Your task to perform on an android device: Open calendar and show me the fourth week of next month Image 0: 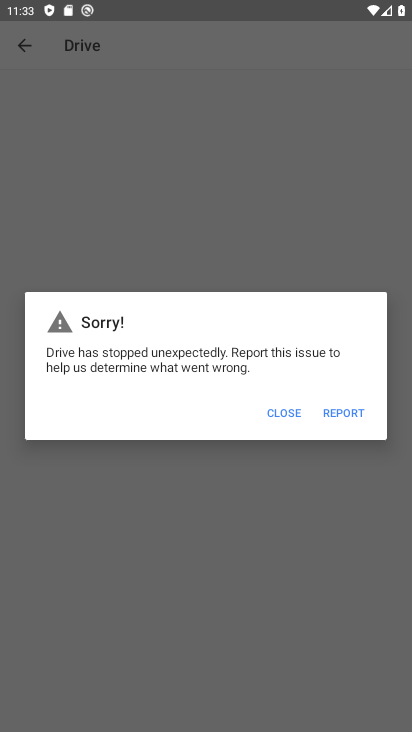
Step 0: press home button
Your task to perform on an android device: Open calendar and show me the fourth week of next month Image 1: 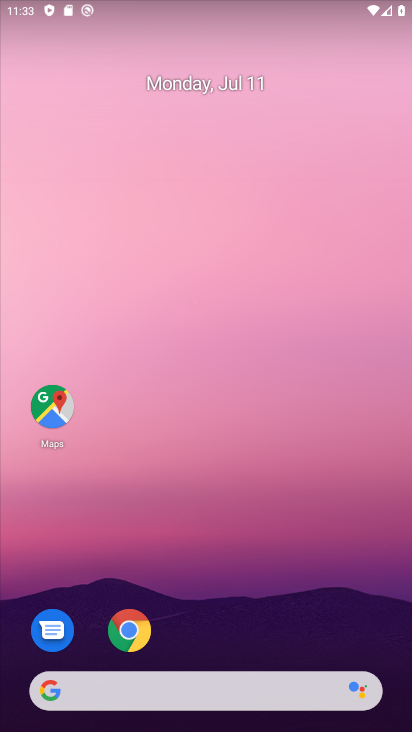
Step 1: drag from (192, 696) to (228, 77)
Your task to perform on an android device: Open calendar and show me the fourth week of next month Image 2: 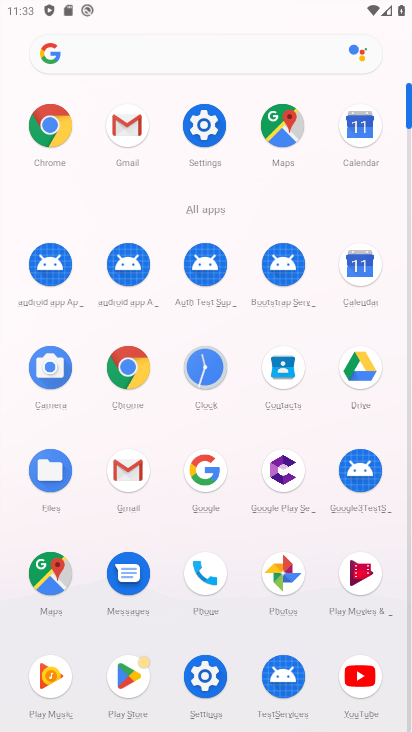
Step 2: click (361, 127)
Your task to perform on an android device: Open calendar and show me the fourth week of next month Image 3: 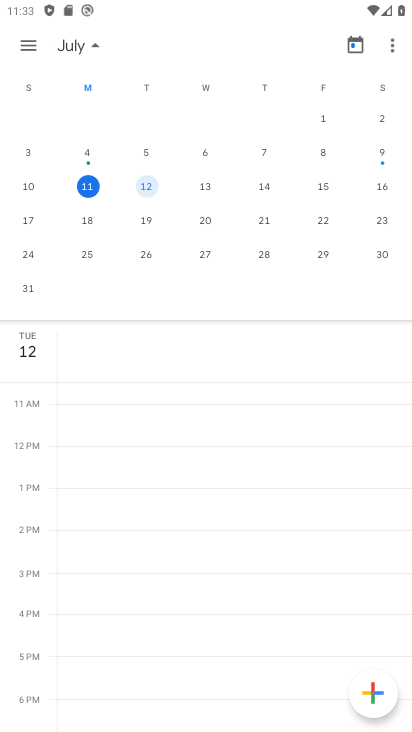
Step 3: click (358, 41)
Your task to perform on an android device: Open calendar and show me the fourth week of next month Image 4: 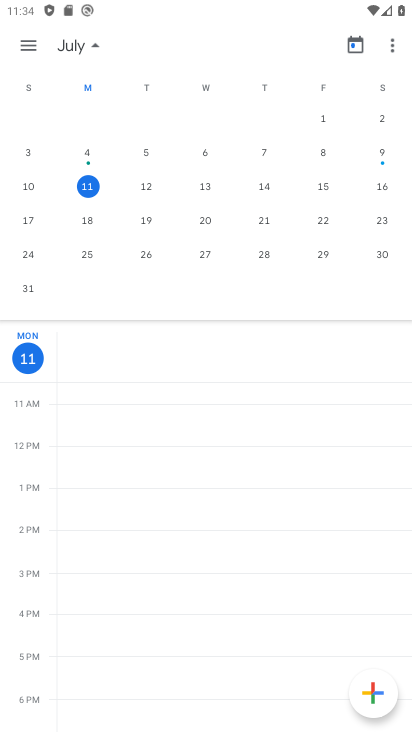
Step 4: drag from (357, 185) to (31, 223)
Your task to perform on an android device: Open calendar and show me the fourth week of next month Image 5: 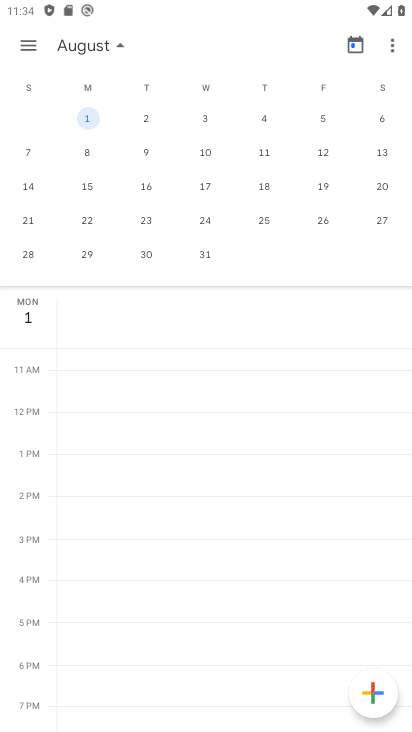
Step 5: click (89, 221)
Your task to perform on an android device: Open calendar and show me the fourth week of next month Image 6: 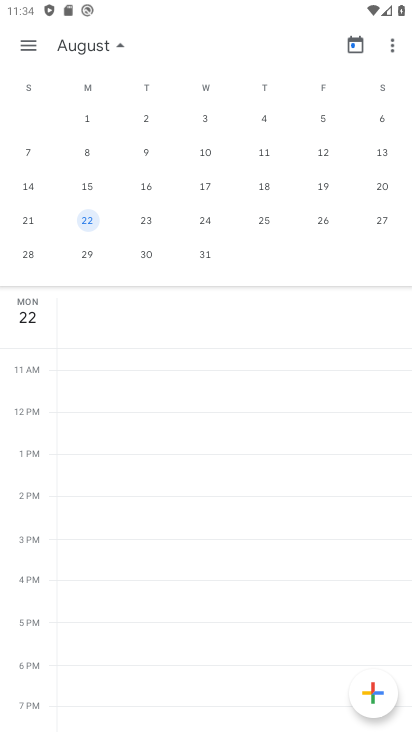
Step 6: click (24, 40)
Your task to perform on an android device: Open calendar and show me the fourth week of next month Image 7: 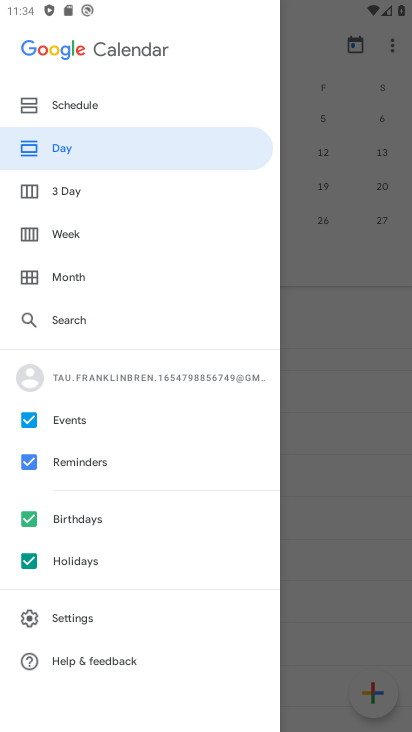
Step 7: click (67, 236)
Your task to perform on an android device: Open calendar and show me the fourth week of next month Image 8: 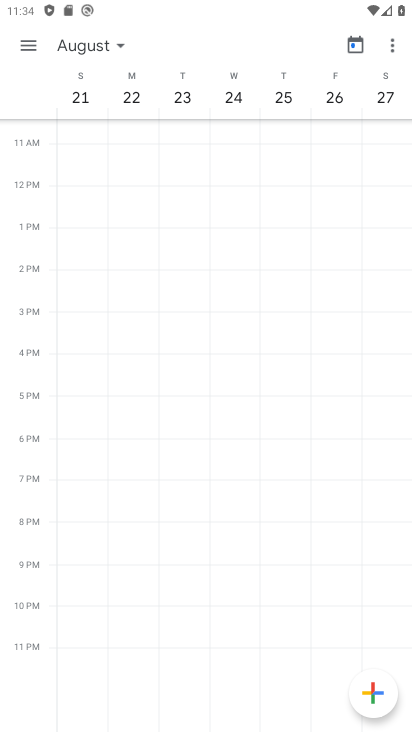
Step 8: task complete